Your task to perform on an android device: Show me recent news Image 0: 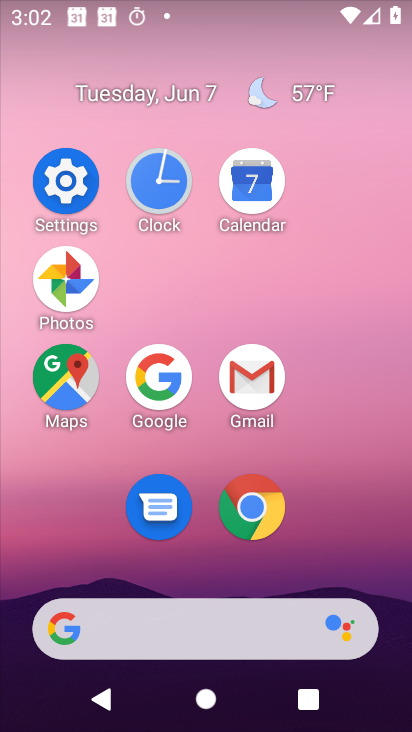
Step 0: click (158, 381)
Your task to perform on an android device: Show me recent news Image 1: 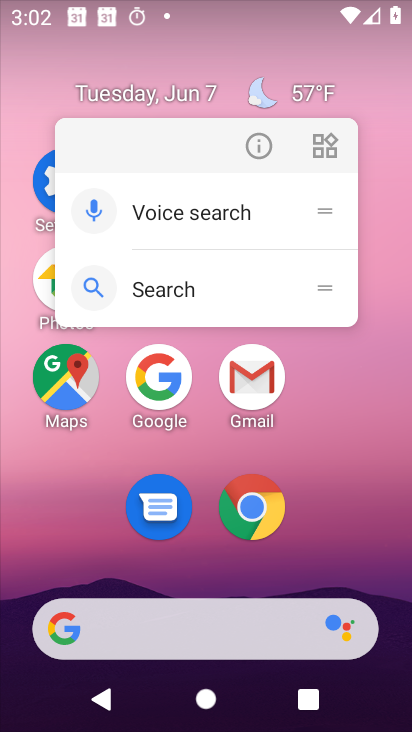
Step 1: click (167, 380)
Your task to perform on an android device: Show me recent news Image 2: 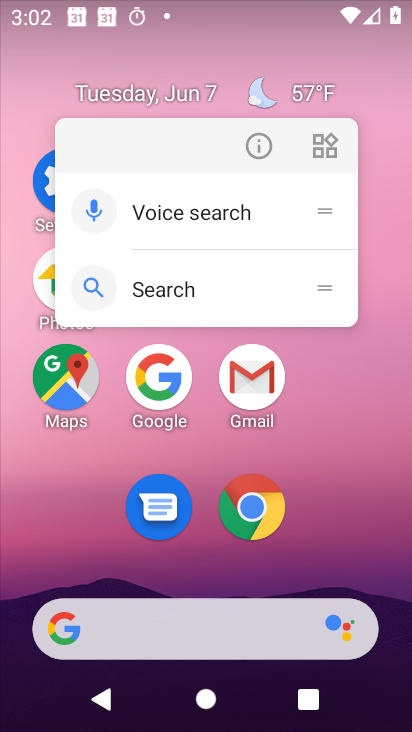
Step 2: click (171, 380)
Your task to perform on an android device: Show me recent news Image 3: 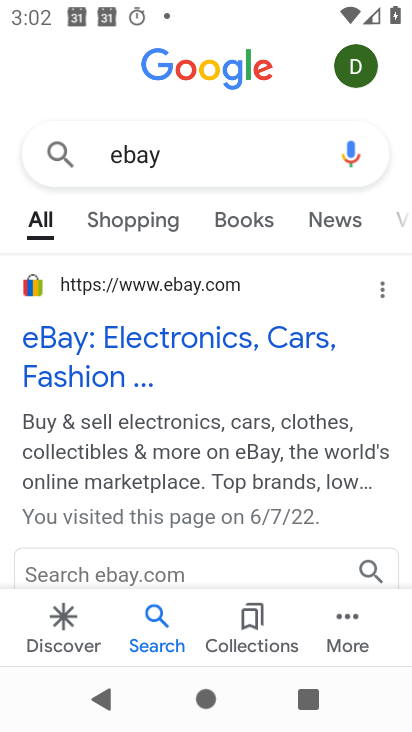
Step 3: drag from (245, 162) to (182, 162)
Your task to perform on an android device: Show me recent news Image 4: 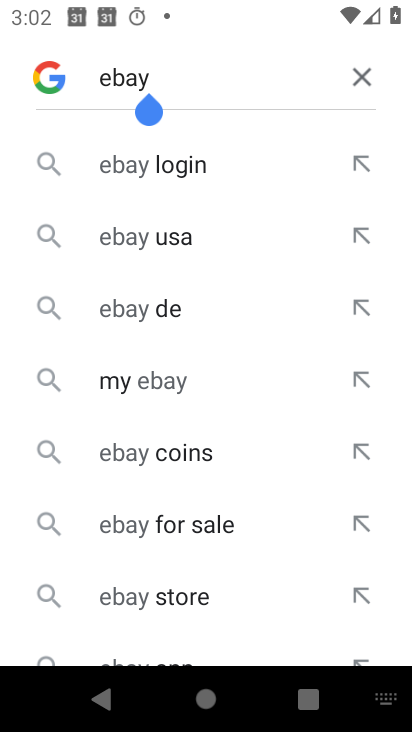
Step 4: click (365, 73)
Your task to perform on an android device: Show me recent news Image 5: 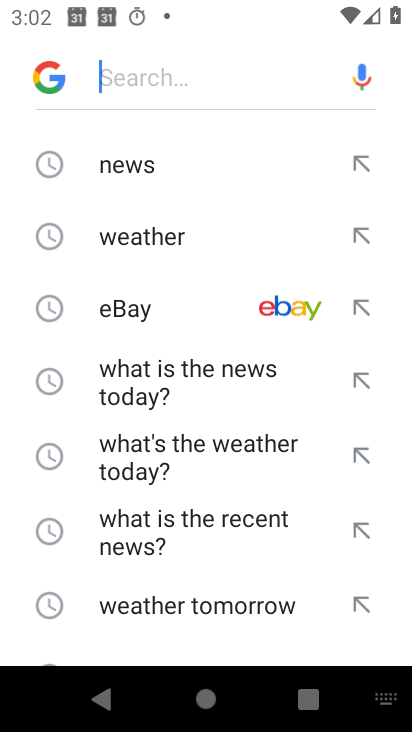
Step 5: drag from (202, 480) to (241, 226)
Your task to perform on an android device: Show me recent news Image 6: 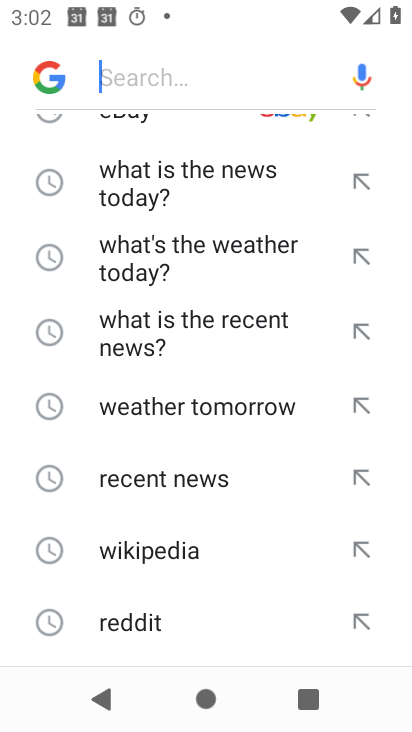
Step 6: click (194, 481)
Your task to perform on an android device: Show me recent news Image 7: 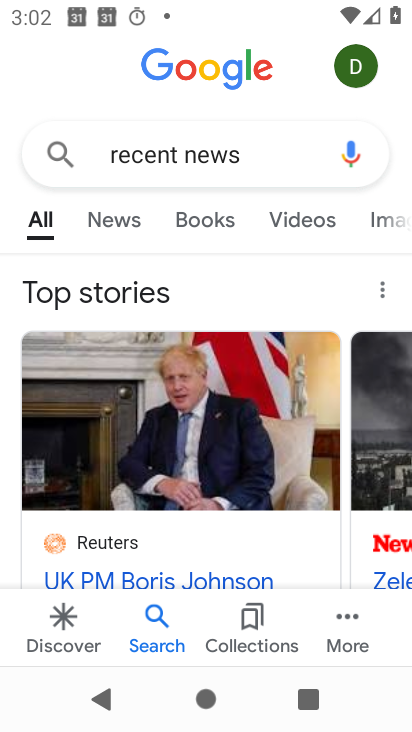
Step 7: task complete